Your task to perform on an android device: check data usage Image 0: 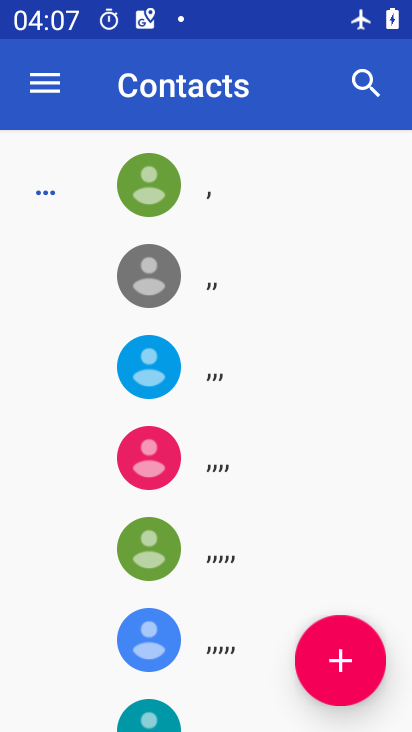
Step 0: press home button
Your task to perform on an android device: check data usage Image 1: 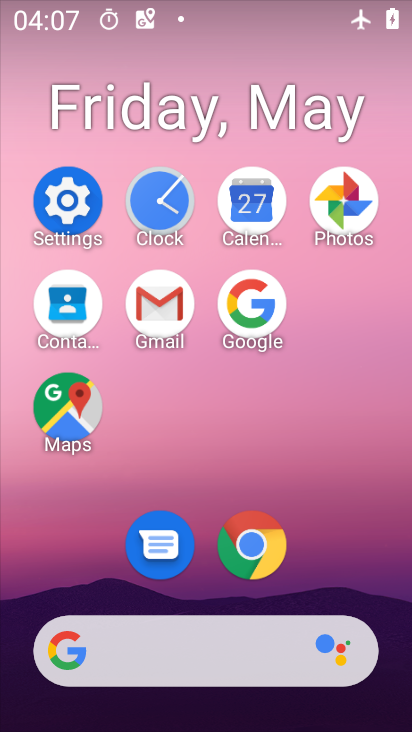
Step 1: click (83, 222)
Your task to perform on an android device: check data usage Image 2: 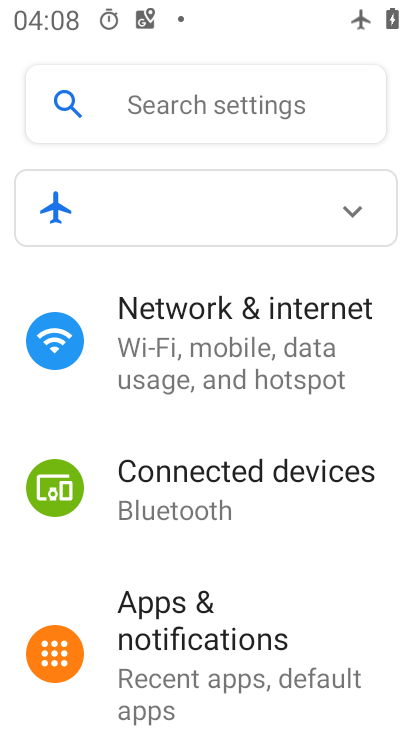
Step 2: click (202, 376)
Your task to perform on an android device: check data usage Image 3: 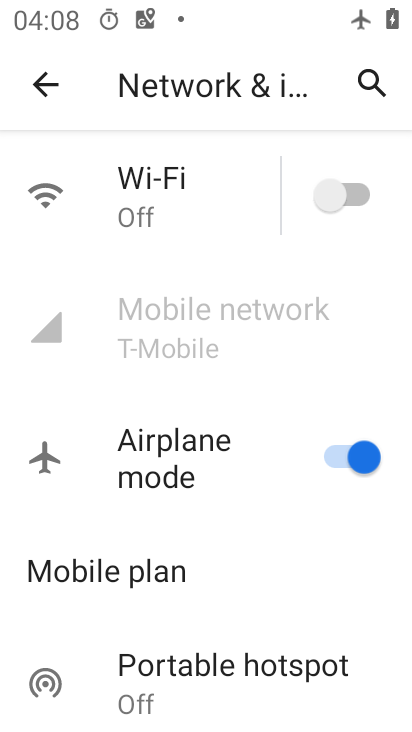
Step 3: task complete